Your task to perform on an android device: open app "Upside-Cash back on gas & food" (install if not already installed), go to login, and select forgot password Image 0: 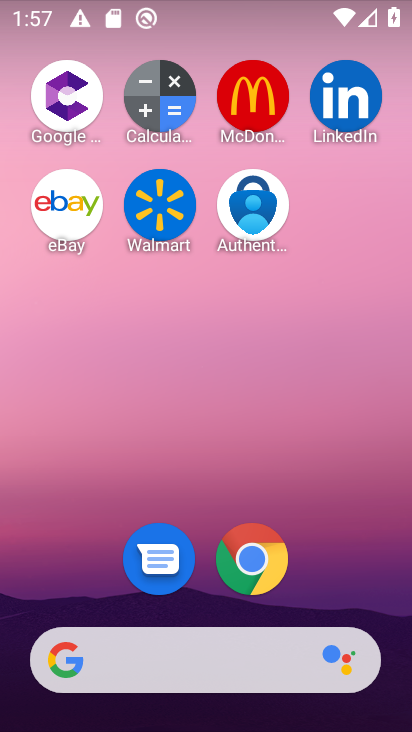
Step 0: drag from (208, 480) to (208, 285)
Your task to perform on an android device: open app "Upside-Cash back on gas & food" (install if not already installed), go to login, and select forgot password Image 1: 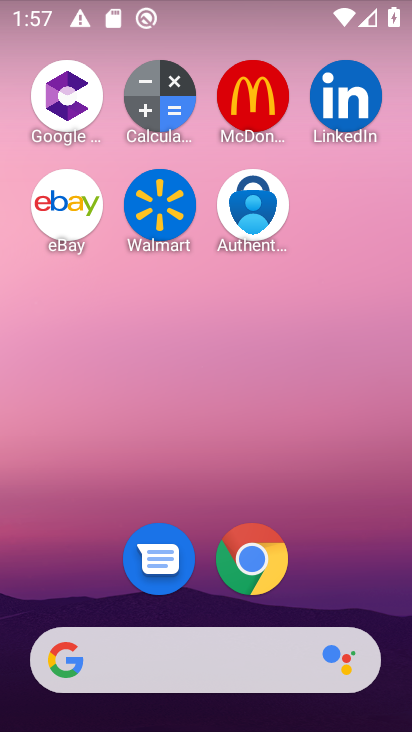
Step 1: drag from (171, 631) to (192, 266)
Your task to perform on an android device: open app "Upside-Cash back on gas & food" (install if not already installed), go to login, and select forgot password Image 2: 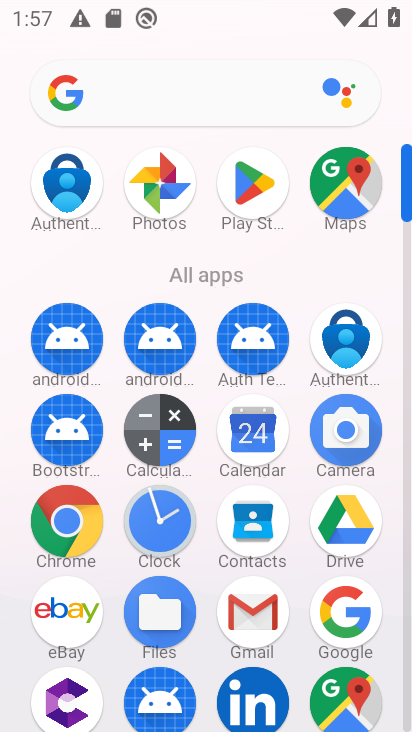
Step 2: click (243, 188)
Your task to perform on an android device: open app "Upside-Cash back on gas & food" (install if not already installed), go to login, and select forgot password Image 3: 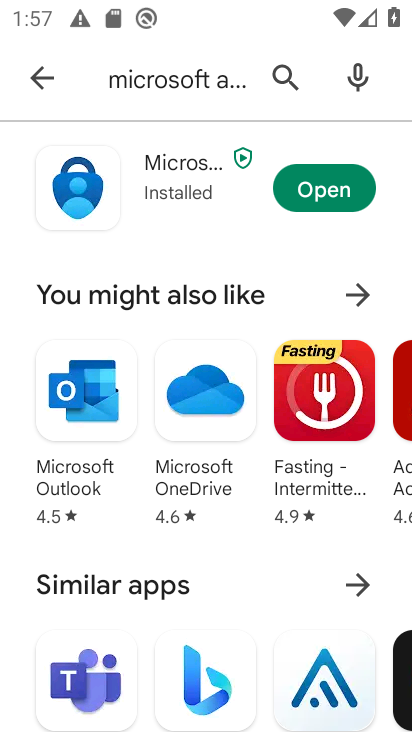
Step 3: click (273, 76)
Your task to perform on an android device: open app "Upside-Cash back on gas & food" (install if not already installed), go to login, and select forgot password Image 4: 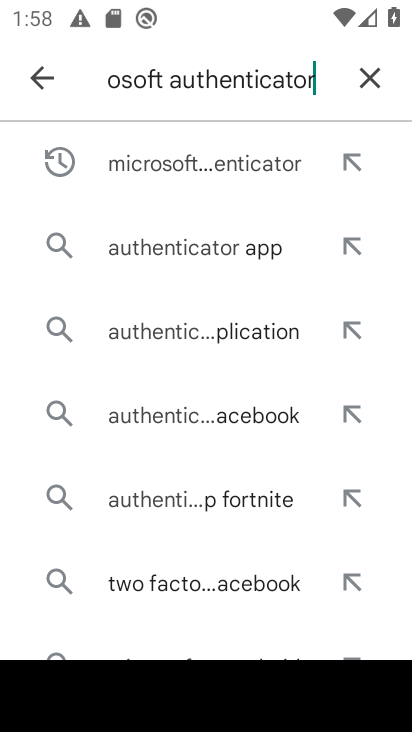
Step 4: click (382, 77)
Your task to perform on an android device: open app "Upside-Cash back on gas & food" (install if not already installed), go to login, and select forgot password Image 5: 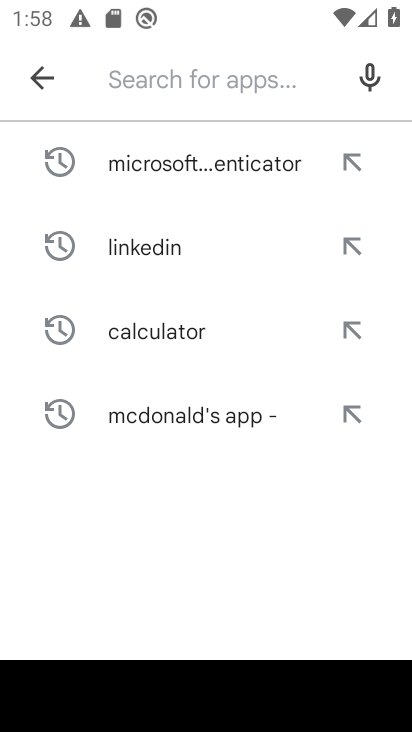
Step 5: type "Upside-Cash back on gas & food"
Your task to perform on an android device: open app "Upside-Cash back on gas & food" (install if not already installed), go to login, and select forgot password Image 6: 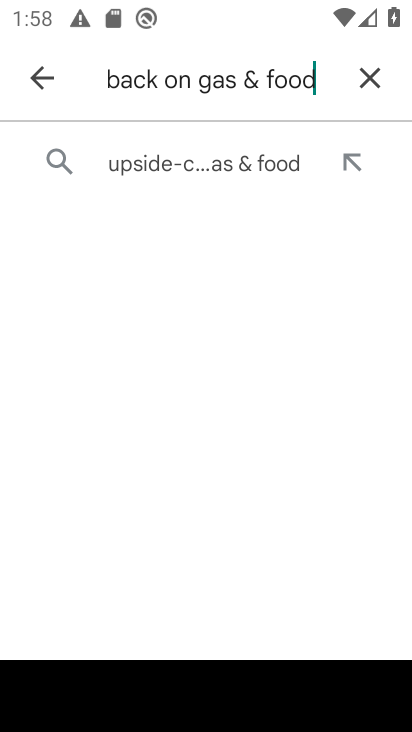
Step 6: click (198, 171)
Your task to perform on an android device: open app "Upside-Cash back on gas & food" (install if not already installed), go to login, and select forgot password Image 7: 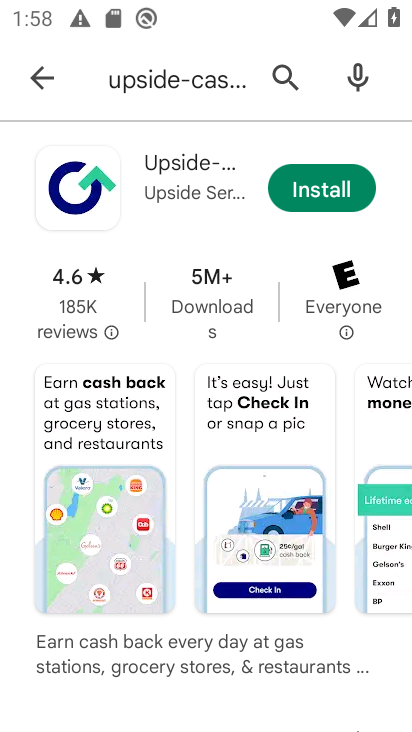
Step 7: click (351, 191)
Your task to perform on an android device: open app "Upside-Cash back on gas & food" (install if not already installed), go to login, and select forgot password Image 8: 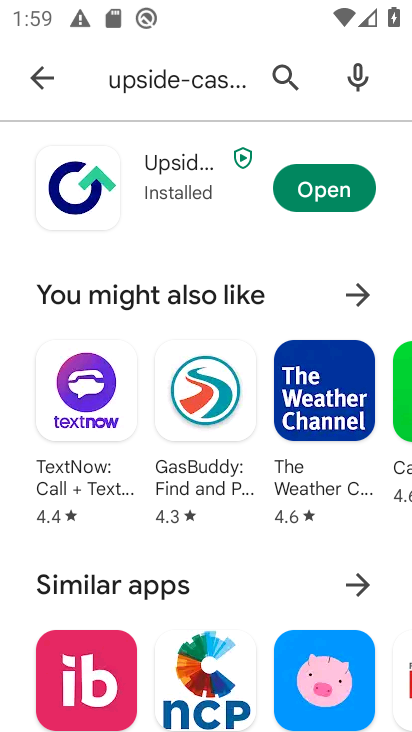
Step 8: click (321, 173)
Your task to perform on an android device: open app "Upside-Cash back on gas & food" (install if not already installed), go to login, and select forgot password Image 9: 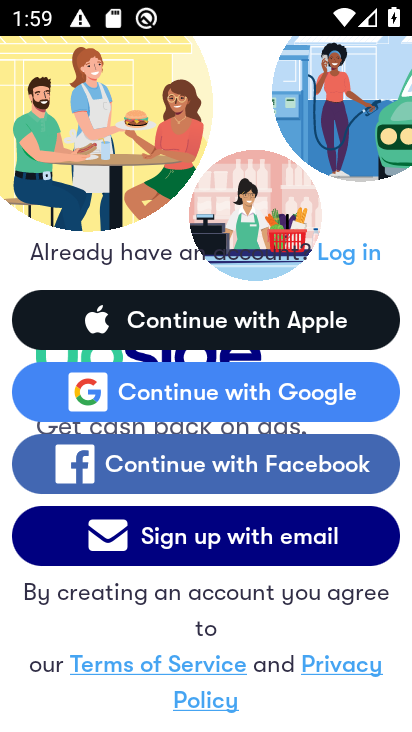
Step 9: task complete